Your task to perform on an android device: move an email to a new category in the gmail app Image 0: 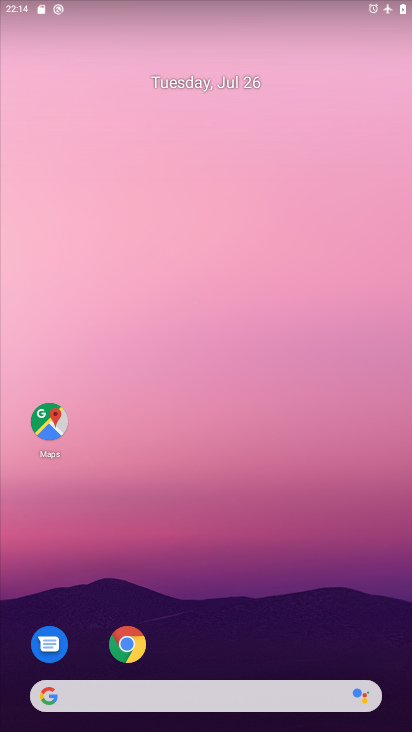
Step 0: drag from (194, 674) to (244, 197)
Your task to perform on an android device: move an email to a new category in the gmail app Image 1: 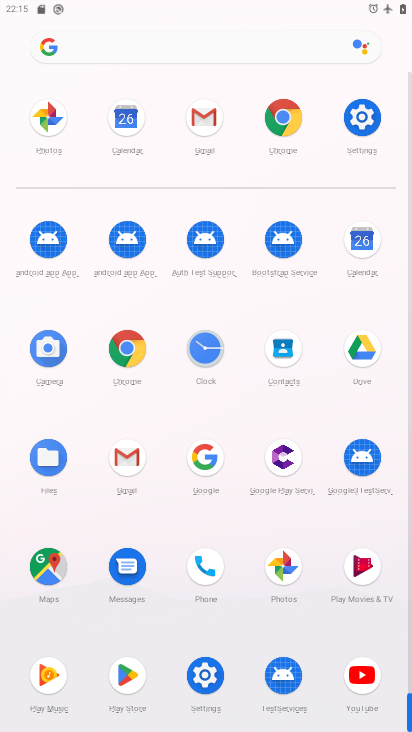
Step 1: click (135, 453)
Your task to perform on an android device: move an email to a new category in the gmail app Image 2: 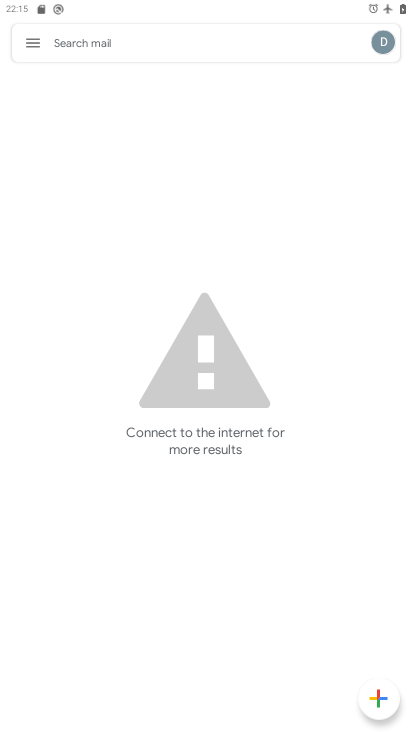
Step 2: click (30, 37)
Your task to perform on an android device: move an email to a new category in the gmail app Image 3: 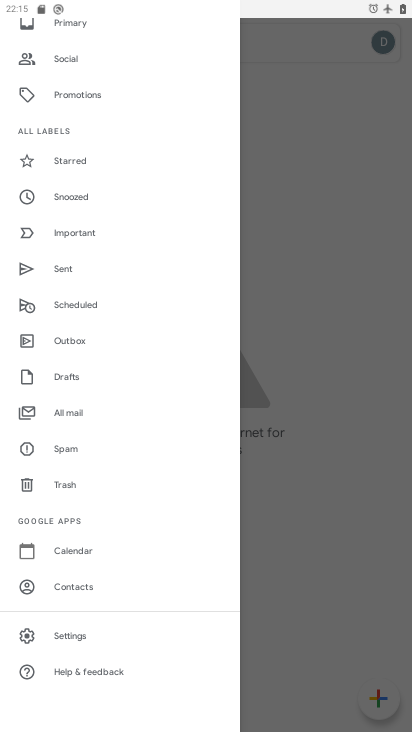
Step 3: click (67, 415)
Your task to perform on an android device: move an email to a new category in the gmail app Image 4: 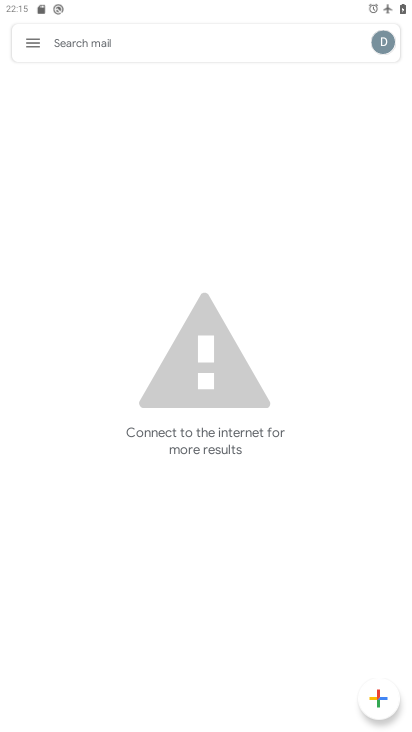
Step 4: task complete